Your task to perform on an android device: Go to calendar. Show me events next week Image 0: 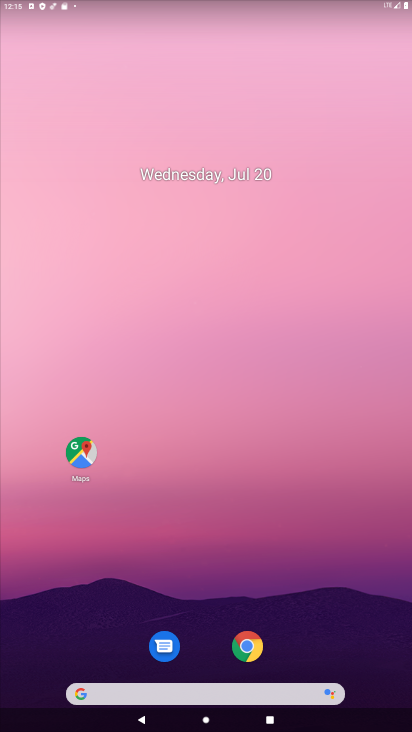
Step 0: click (183, 180)
Your task to perform on an android device: Go to calendar. Show me events next week Image 1: 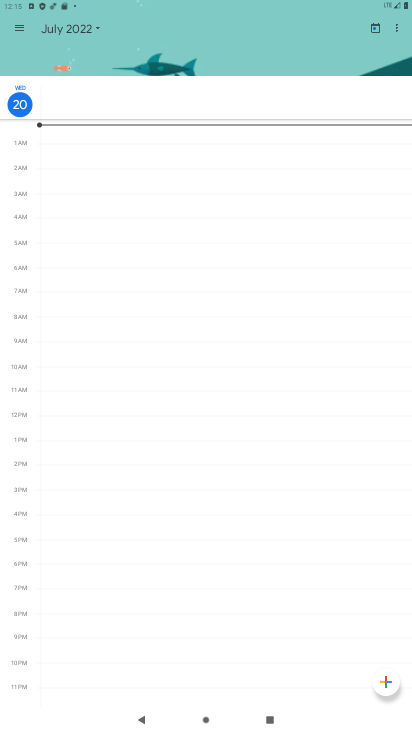
Step 1: click (14, 23)
Your task to perform on an android device: Go to calendar. Show me events next week Image 2: 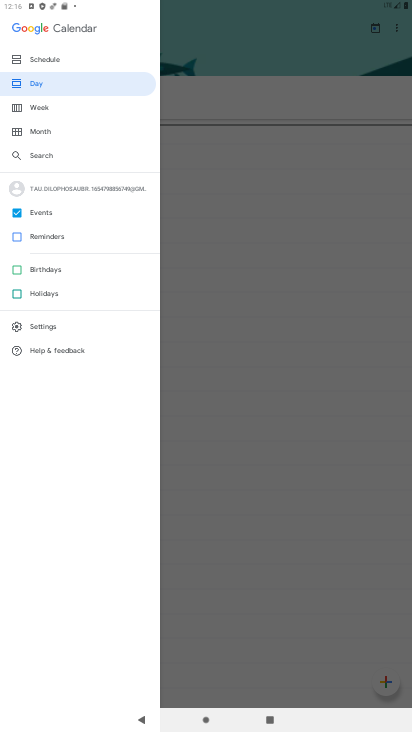
Step 2: click (56, 133)
Your task to perform on an android device: Go to calendar. Show me events next week Image 3: 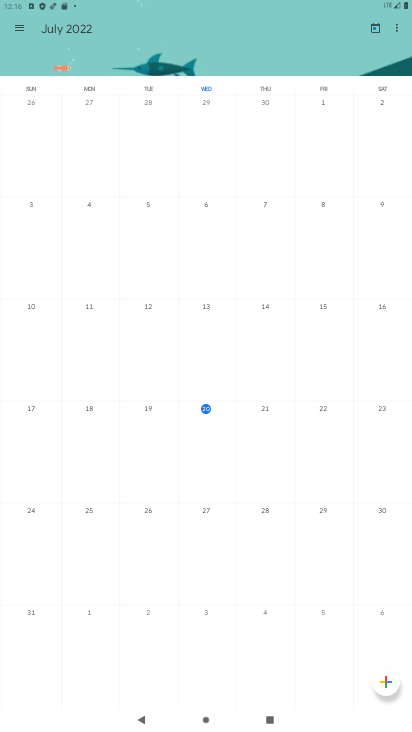
Step 3: click (24, 35)
Your task to perform on an android device: Go to calendar. Show me events next week Image 4: 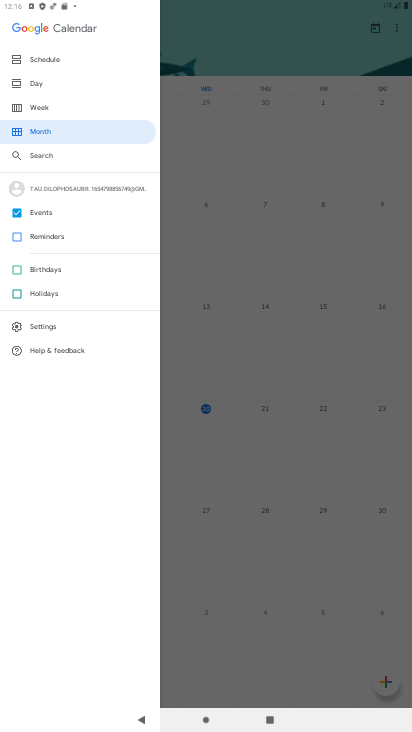
Step 4: click (24, 35)
Your task to perform on an android device: Go to calendar. Show me events next week Image 5: 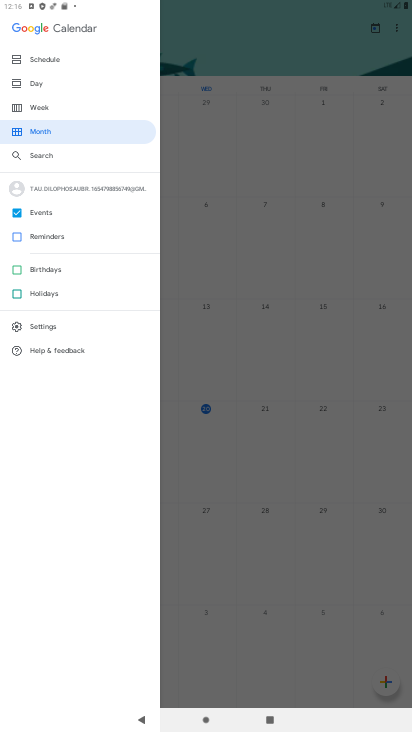
Step 5: click (61, 108)
Your task to perform on an android device: Go to calendar. Show me events next week Image 6: 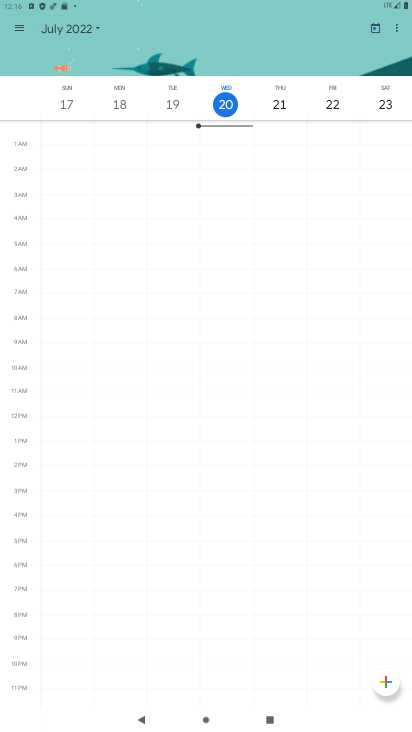
Step 6: task complete